Your task to perform on an android device: Open ESPN.com Image 0: 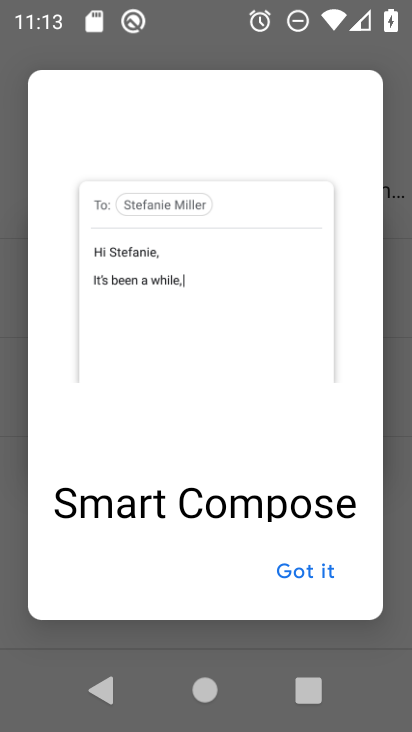
Step 0: press home button
Your task to perform on an android device: Open ESPN.com Image 1: 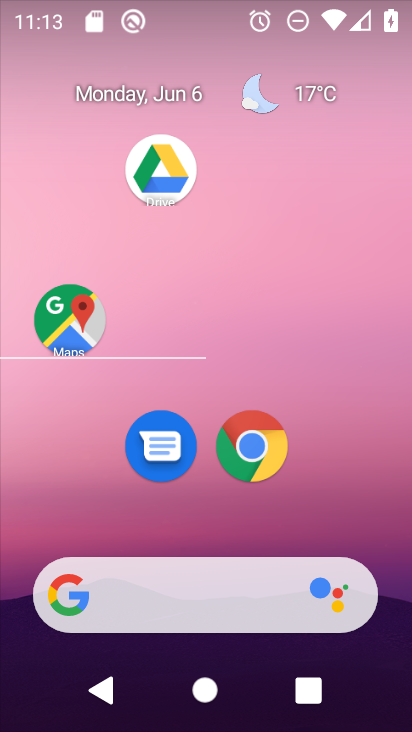
Step 1: click (255, 448)
Your task to perform on an android device: Open ESPN.com Image 2: 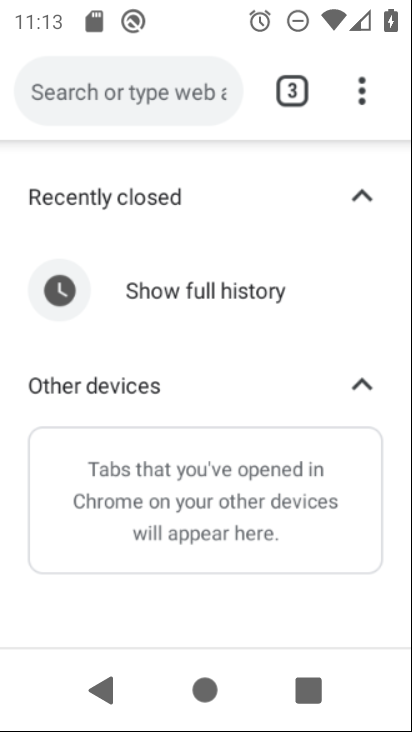
Step 2: click (255, 448)
Your task to perform on an android device: Open ESPN.com Image 3: 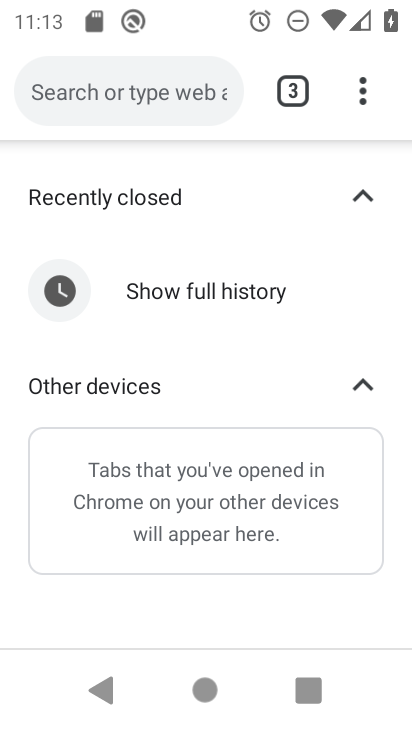
Step 3: click (161, 92)
Your task to perform on an android device: Open ESPN.com Image 4: 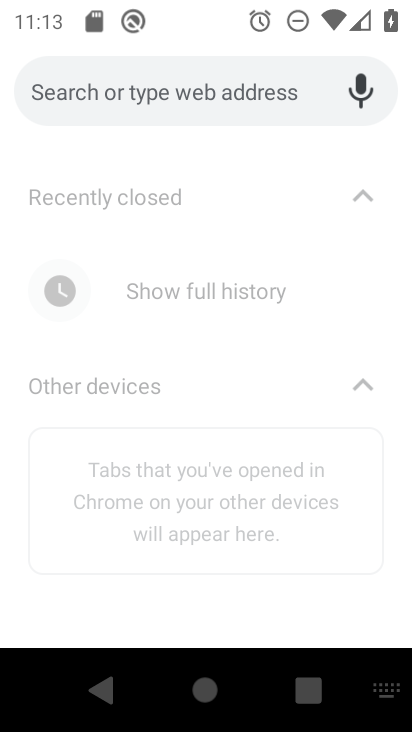
Step 4: type "espn"
Your task to perform on an android device: Open ESPN.com Image 5: 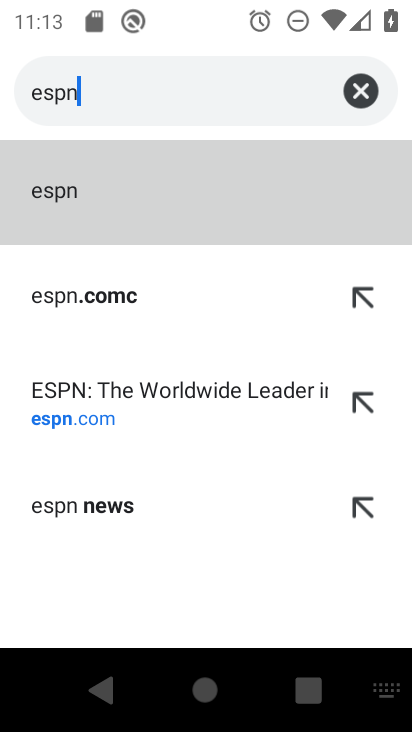
Step 5: click (150, 414)
Your task to perform on an android device: Open ESPN.com Image 6: 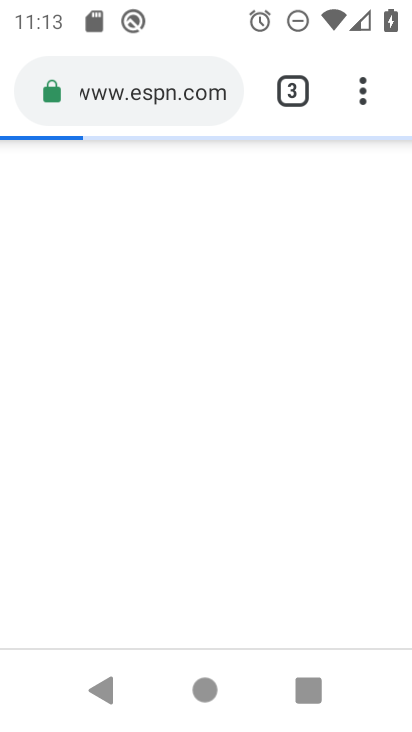
Step 6: click (150, 414)
Your task to perform on an android device: Open ESPN.com Image 7: 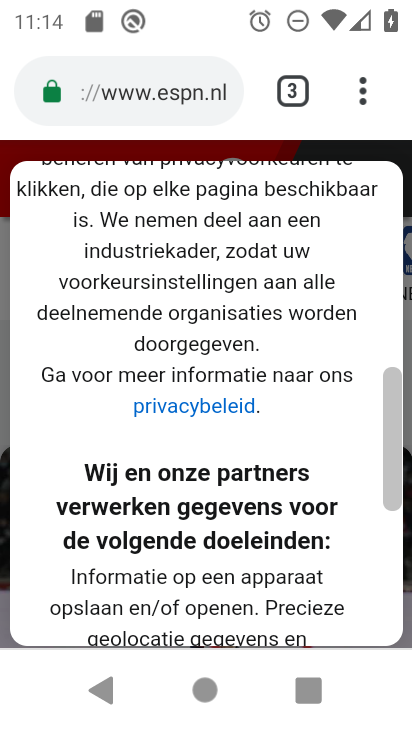
Step 7: task complete